Your task to perform on an android device: Is it going to rain tomorrow? Image 0: 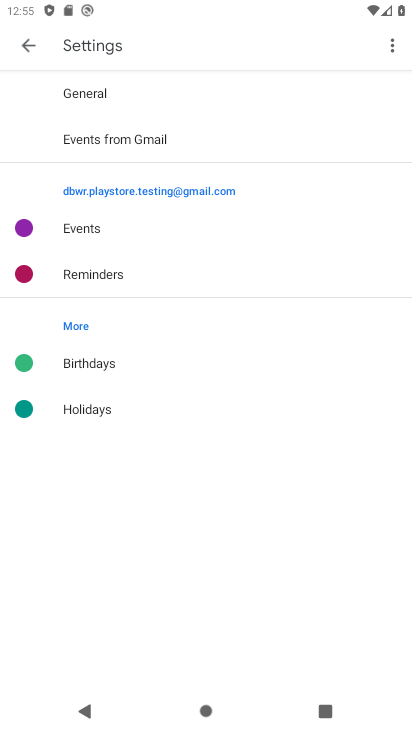
Step 0: press home button
Your task to perform on an android device: Is it going to rain tomorrow? Image 1: 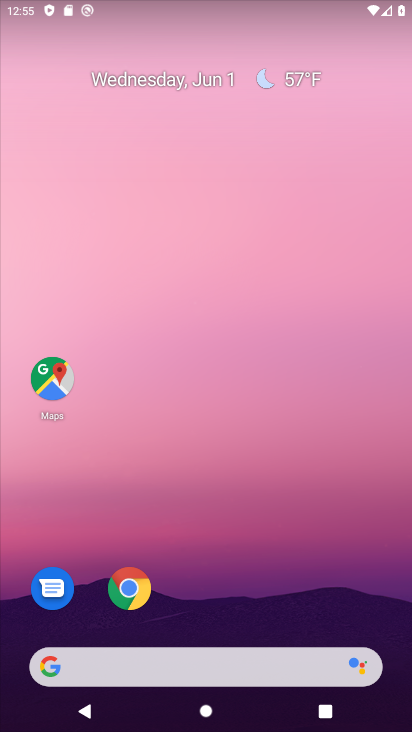
Step 1: click (306, 75)
Your task to perform on an android device: Is it going to rain tomorrow? Image 2: 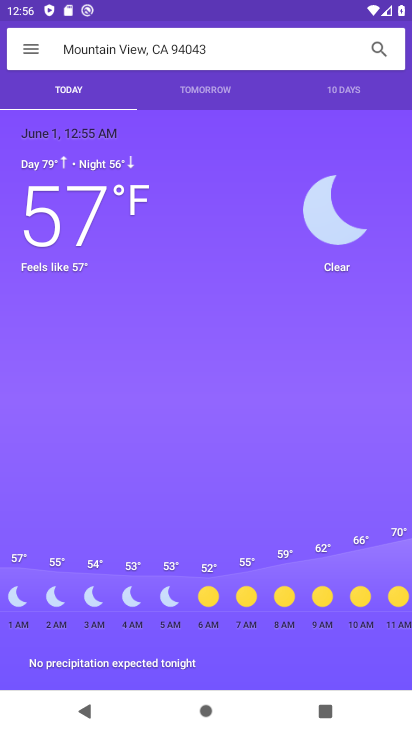
Step 2: click (200, 92)
Your task to perform on an android device: Is it going to rain tomorrow? Image 3: 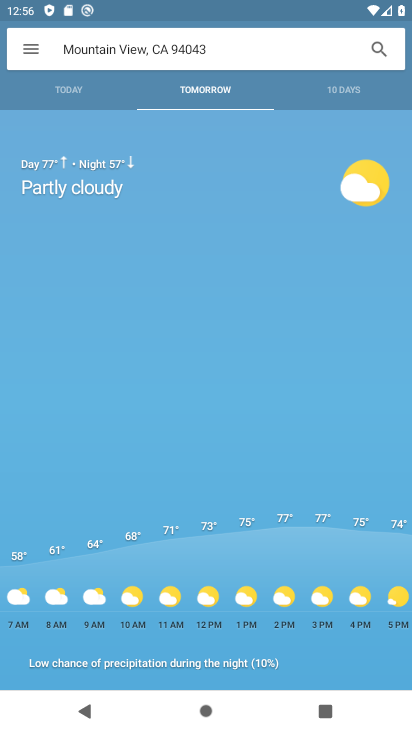
Step 3: task complete